Your task to perform on an android device: change the clock style Image 0: 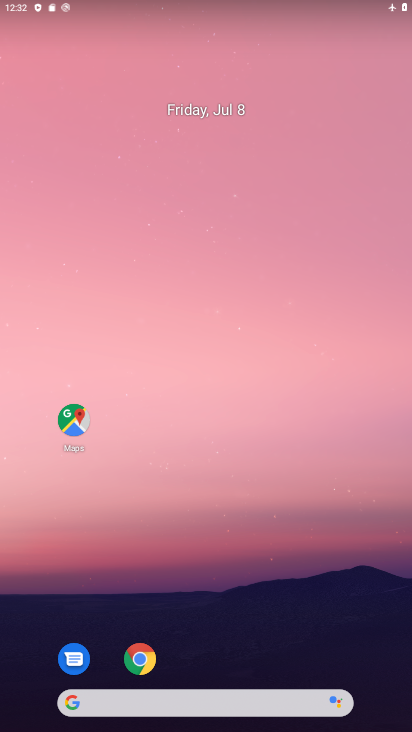
Step 0: drag from (391, 632) to (324, 43)
Your task to perform on an android device: change the clock style Image 1: 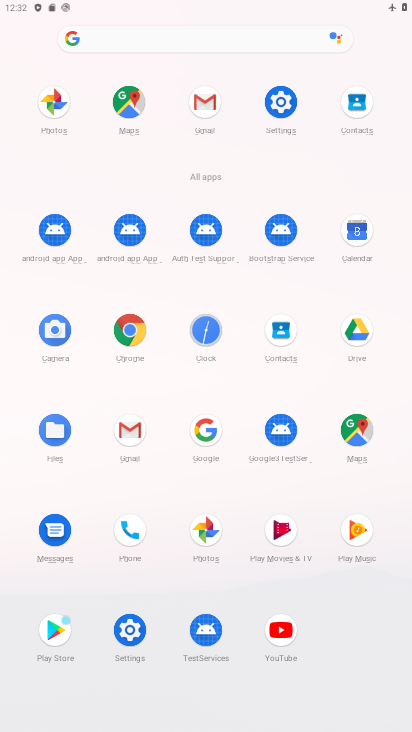
Step 1: click (205, 329)
Your task to perform on an android device: change the clock style Image 2: 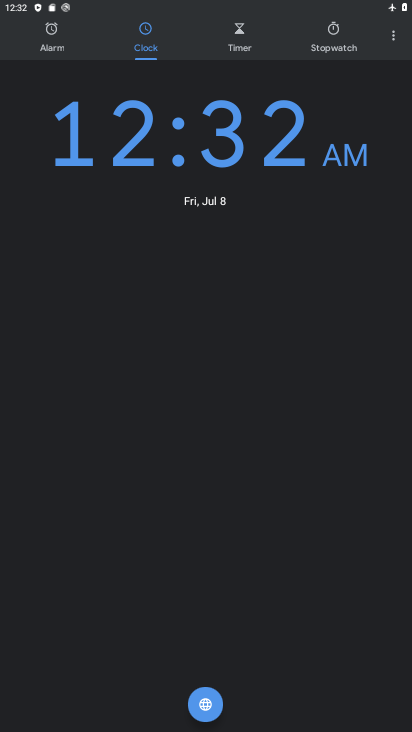
Step 2: click (393, 40)
Your task to perform on an android device: change the clock style Image 3: 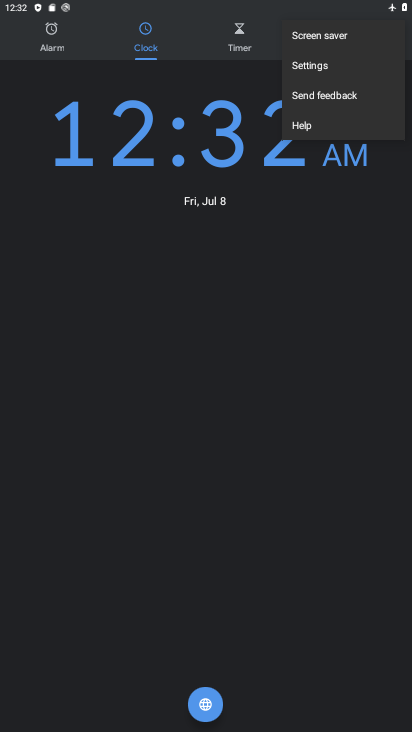
Step 3: click (298, 68)
Your task to perform on an android device: change the clock style Image 4: 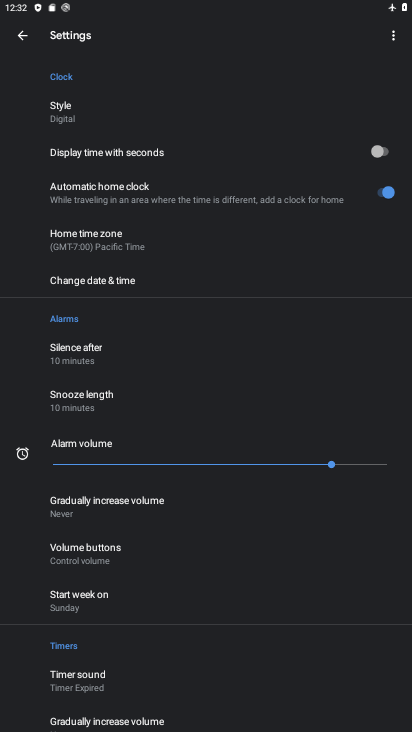
Step 4: click (58, 110)
Your task to perform on an android device: change the clock style Image 5: 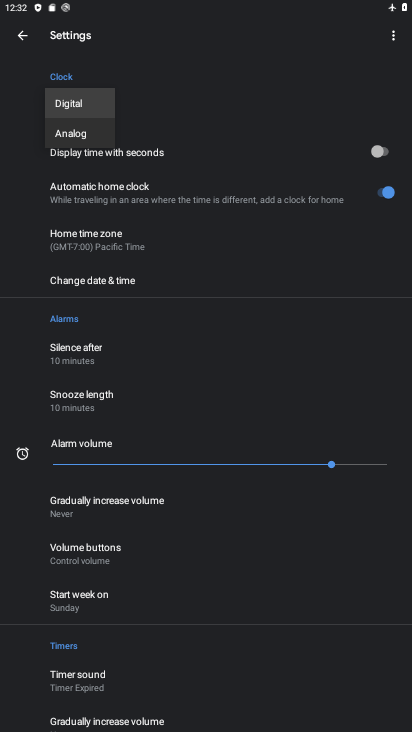
Step 5: click (69, 126)
Your task to perform on an android device: change the clock style Image 6: 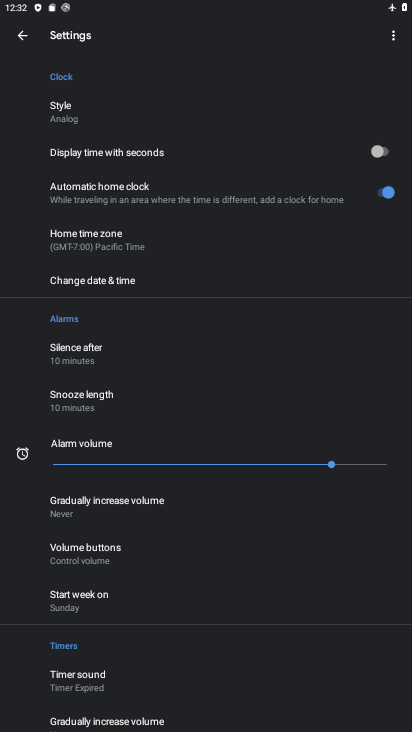
Step 6: task complete